Your task to perform on an android device: uninstall "Google Play services" Image 0: 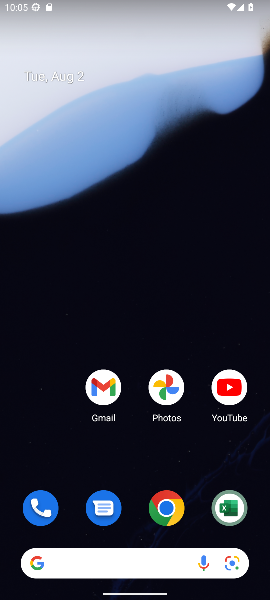
Step 0: drag from (138, 452) to (160, 3)
Your task to perform on an android device: uninstall "Google Play services" Image 1: 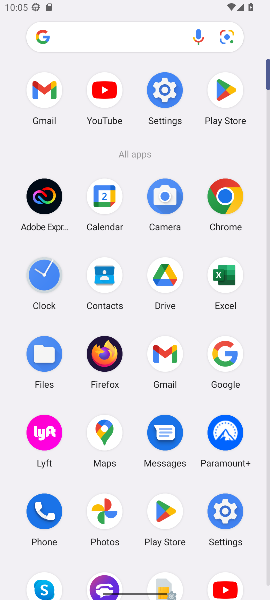
Step 1: click (231, 84)
Your task to perform on an android device: uninstall "Google Play services" Image 2: 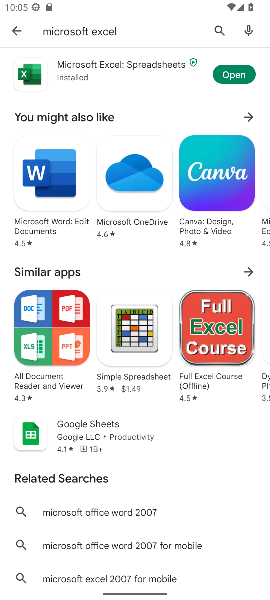
Step 2: click (216, 33)
Your task to perform on an android device: uninstall "Google Play services" Image 3: 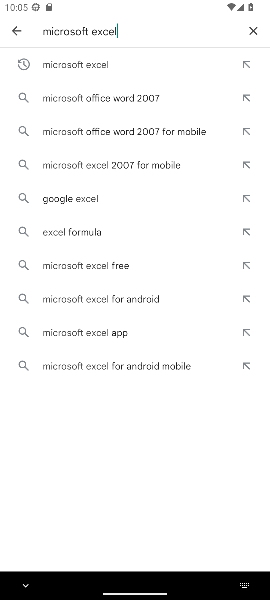
Step 3: click (252, 27)
Your task to perform on an android device: uninstall "Google Play services" Image 4: 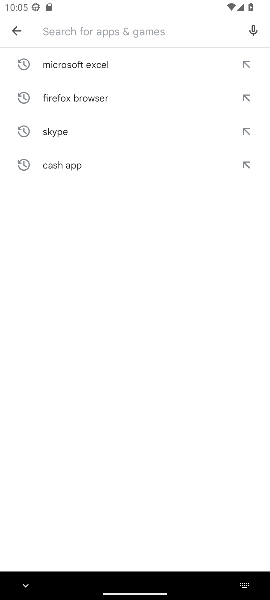
Step 4: type "Google Play services"
Your task to perform on an android device: uninstall "Google Play services" Image 5: 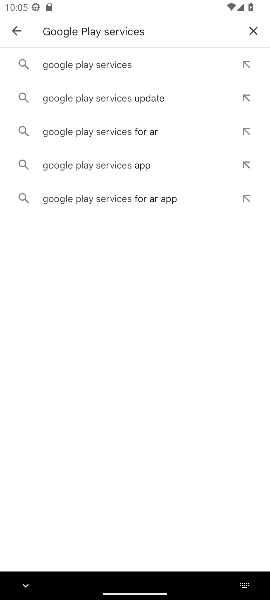
Step 5: click (63, 60)
Your task to perform on an android device: uninstall "Google Play services" Image 6: 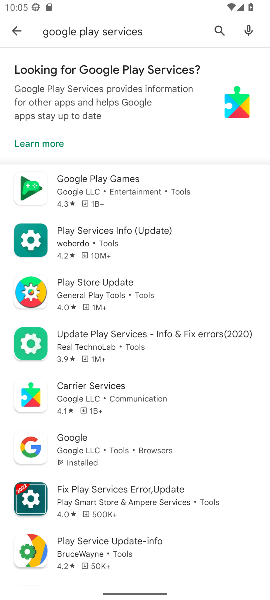
Step 6: drag from (136, 478) to (135, 264)
Your task to perform on an android device: uninstall "Google Play services" Image 7: 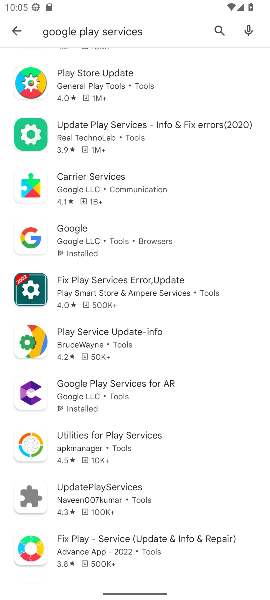
Step 7: click (98, 380)
Your task to perform on an android device: uninstall "Google Play services" Image 8: 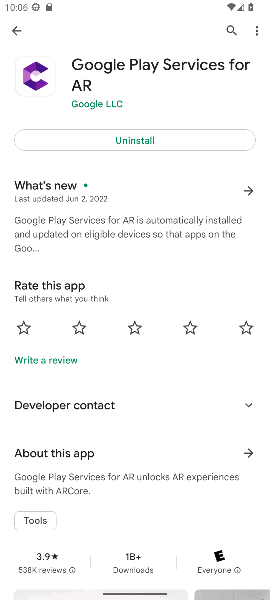
Step 8: click (139, 140)
Your task to perform on an android device: uninstall "Google Play services" Image 9: 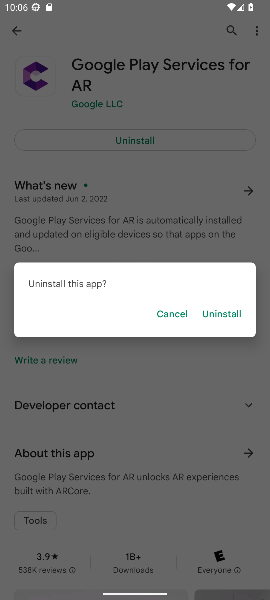
Step 9: click (209, 315)
Your task to perform on an android device: uninstall "Google Play services" Image 10: 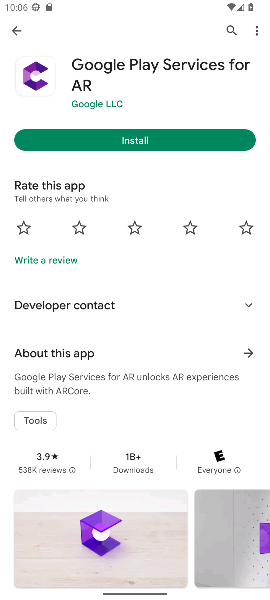
Step 10: task complete